Your task to perform on an android device: check out phone information Image 0: 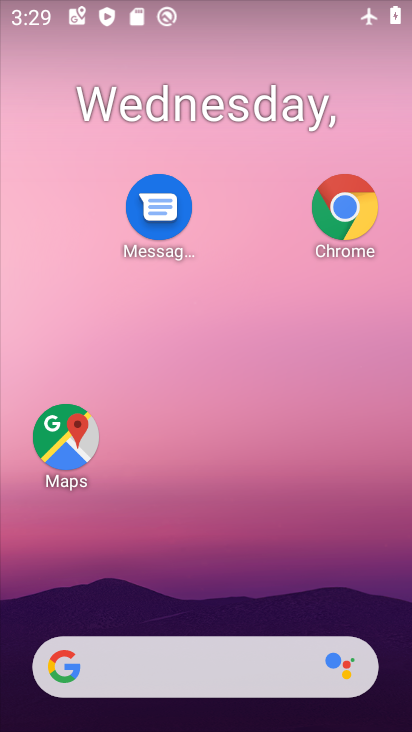
Step 0: drag from (199, 569) to (171, 5)
Your task to perform on an android device: check out phone information Image 1: 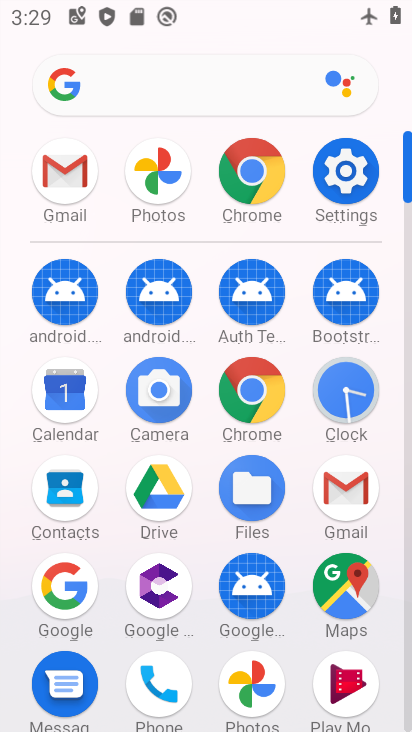
Step 1: click (346, 168)
Your task to perform on an android device: check out phone information Image 2: 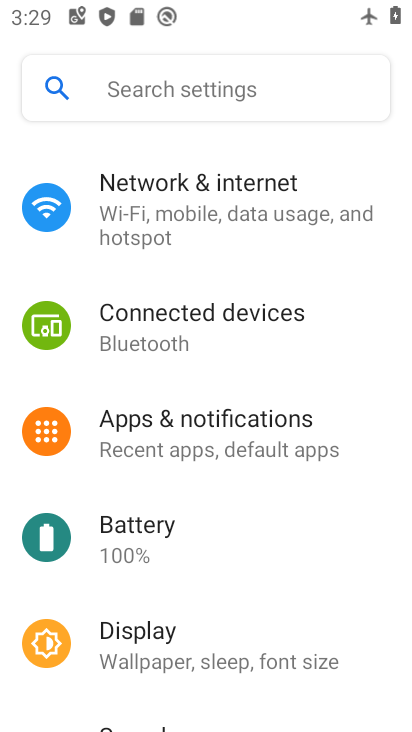
Step 2: drag from (200, 566) to (228, 179)
Your task to perform on an android device: check out phone information Image 3: 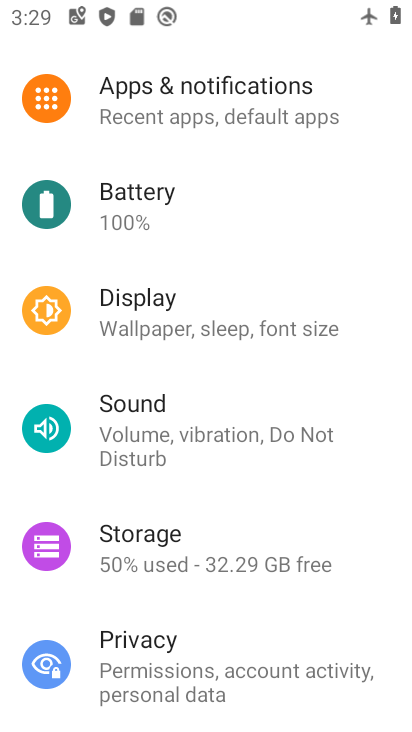
Step 3: drag from (204, 573) to (215, 229)
Your task to perform on an android device: check out phone information Image 4: 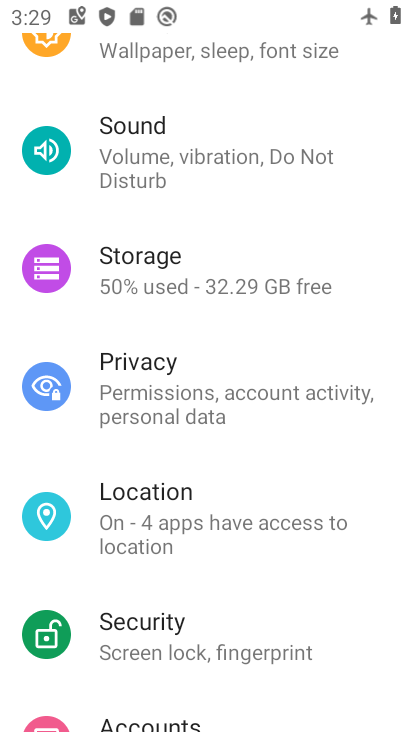
Step 4: drag from (194, 612) to (286, 265)
Your task to perform on an android device: check out phone information Image 5: 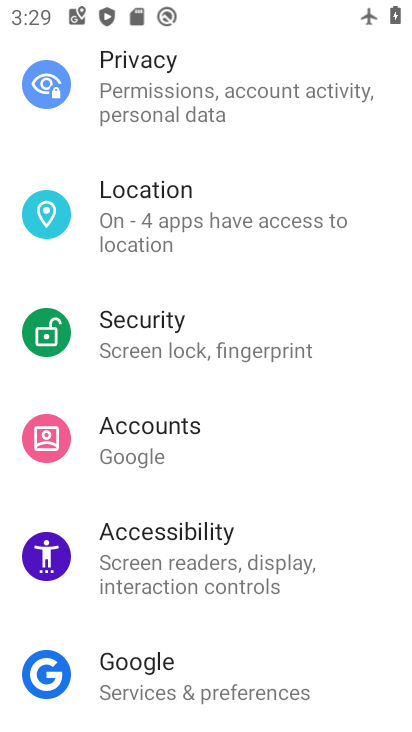
Step 5: drag from (223, 443) to (221, 133)
Your task to perform on an android device: check out phone information Image 6: 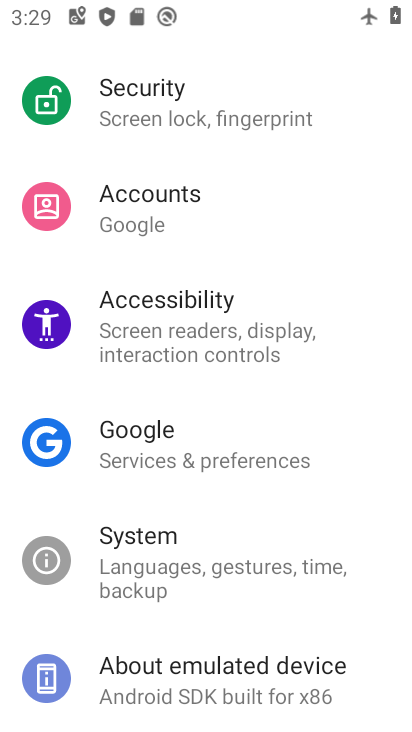
Step 6: click (208, 672)
Your task to perform on an android device: check out phone information Image 7: 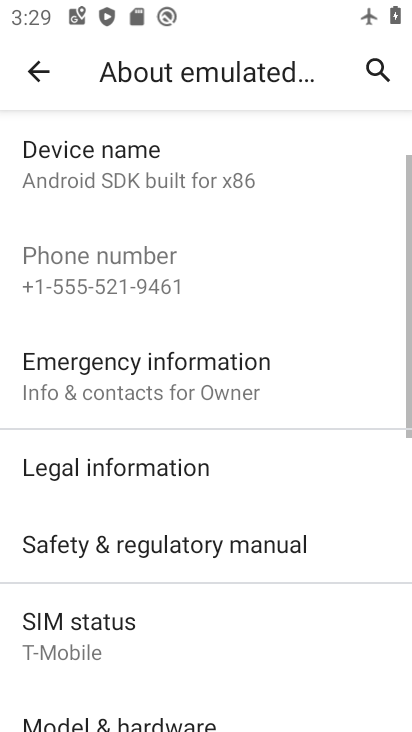
Step 7: task complete